Your task to perform on an android device: Search for hotels in Tokyo Image 0: 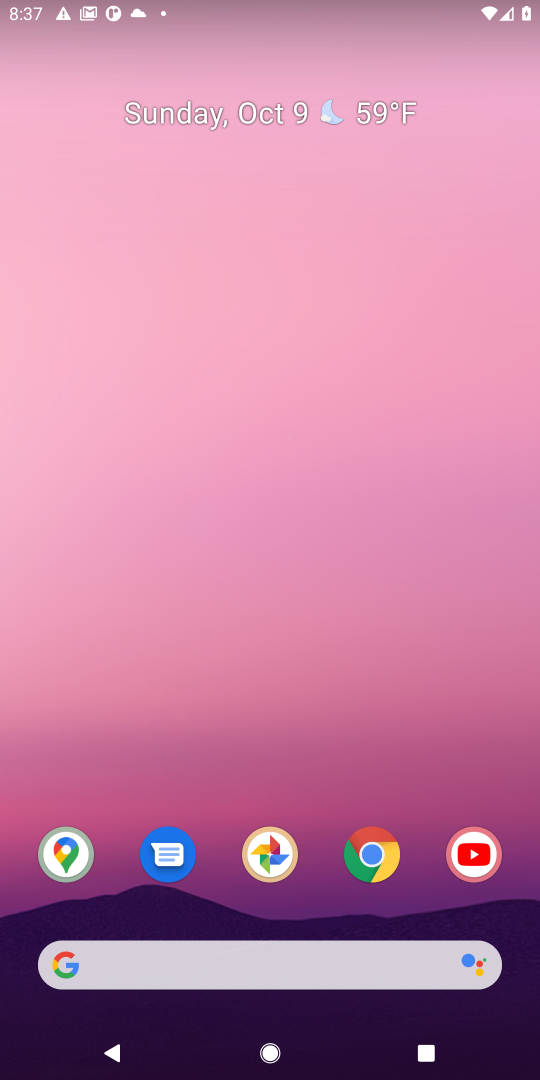
Step 0: drag from (272, 924) to (234, 86)
Your task to perform on an android device: Search for hotels in Tokyo Image 1: 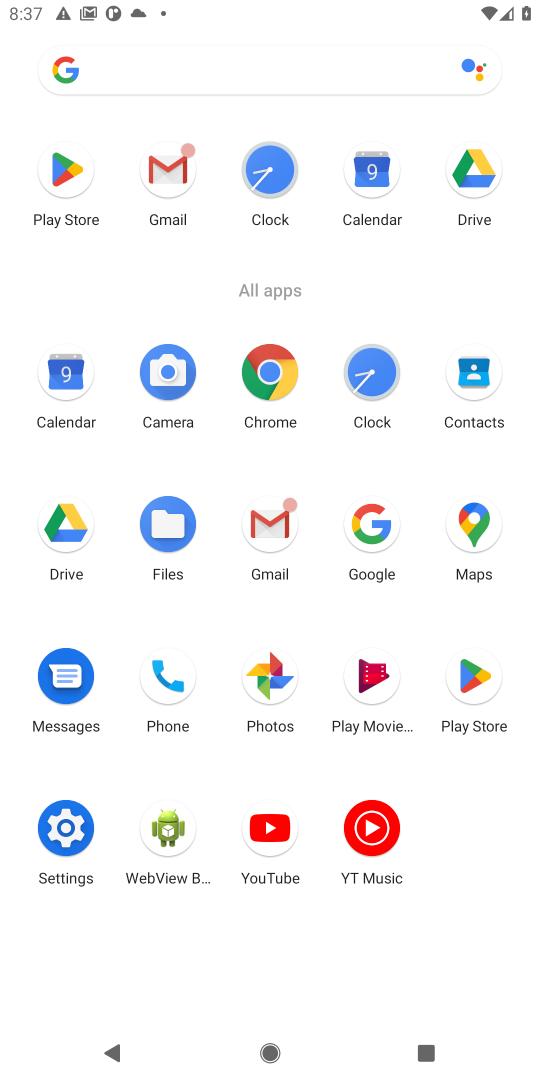
Step 1: click (376, 526)
Your task to perform on an android device: Search for hotels in Tokyo Image 2: 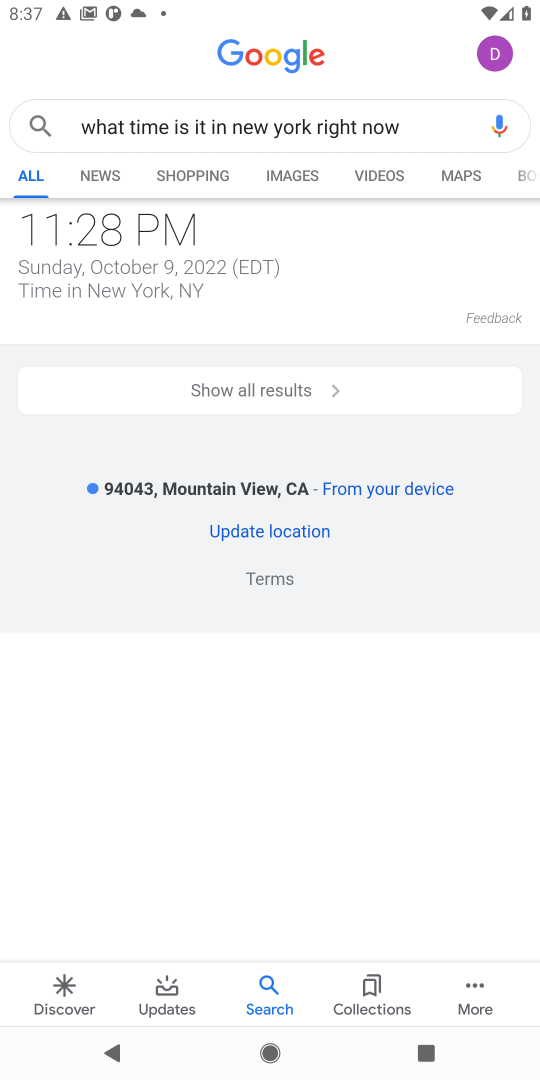
Step 2: click (414, 122)
Your task to perform on an android device: Search for hotels in Tokyo Image 3: 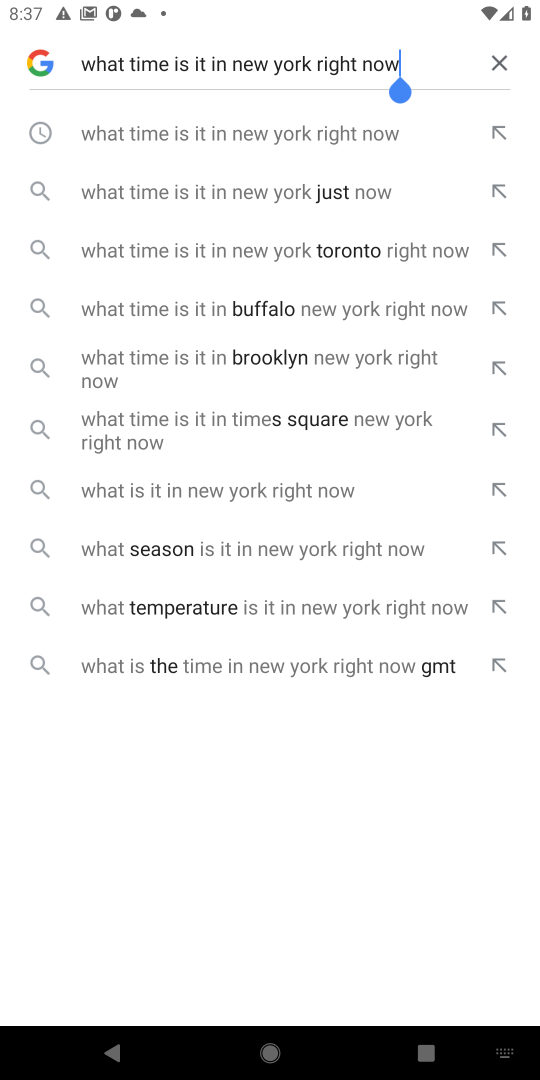
Step 3: click (493, 57)
Your task to perform on an android device: Search for hotels in Tokyo Image 4: 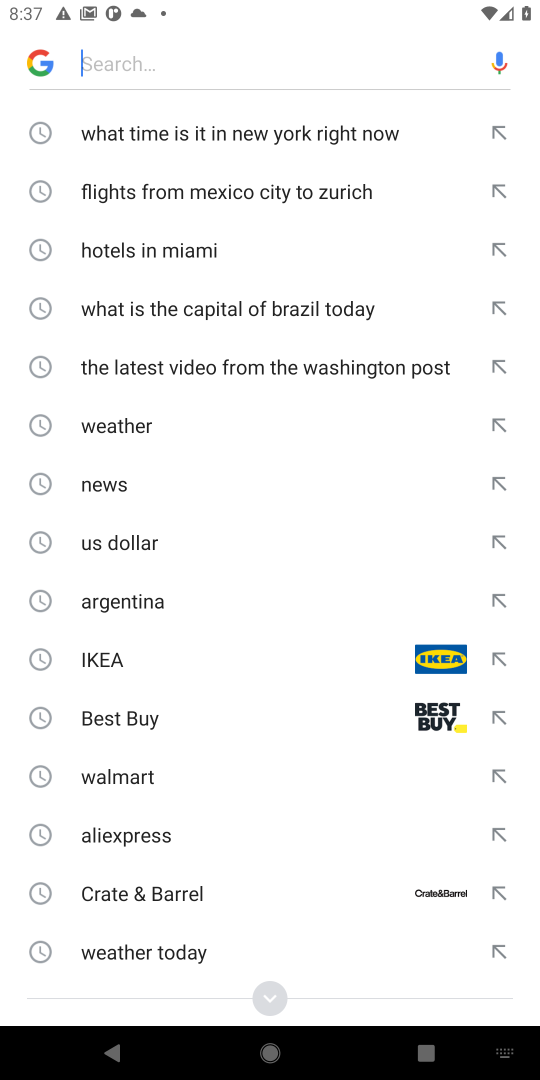
Step 4: type "hotels in Tokyo"
Your task to perform on an android device: Search for hotels in Tokyo Image 5: 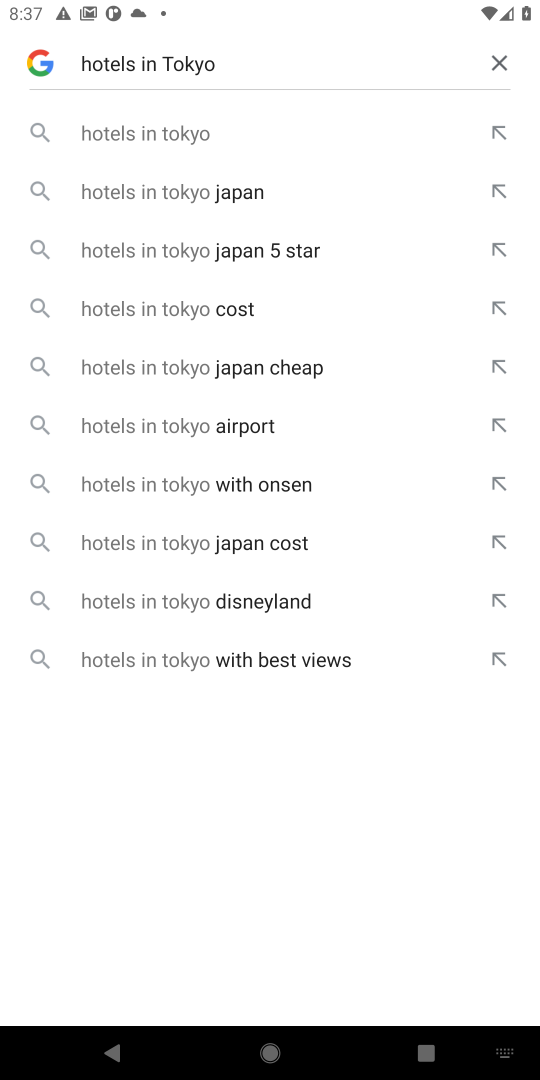
Step 5: click (144, 130)
Your task to perform on an android device: Search for hotels in Tokyo Image 6: 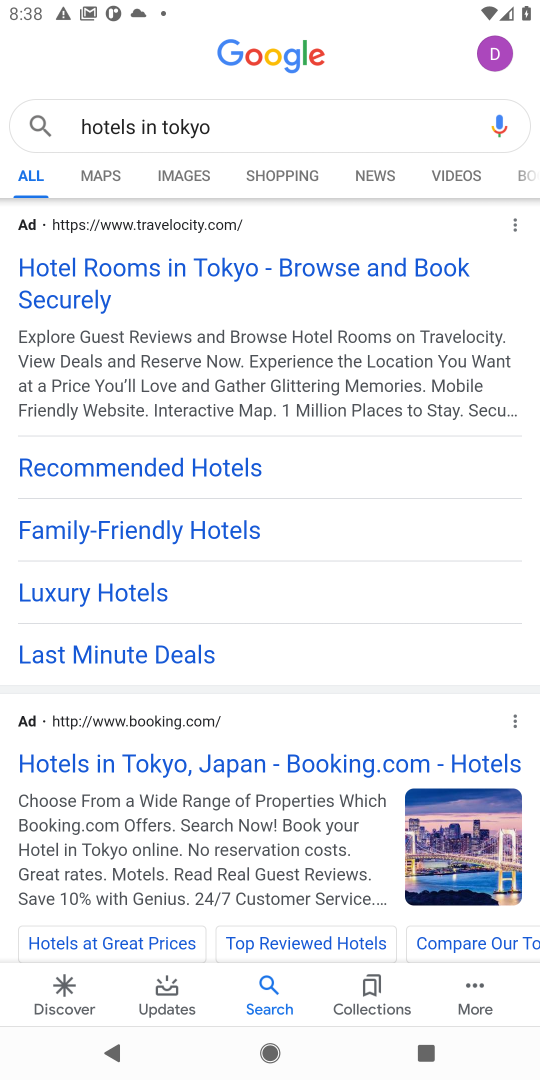
Step 6: click (232, 267)
Your task to perform on an android device: Search for hotels in Tokyo Image 7: 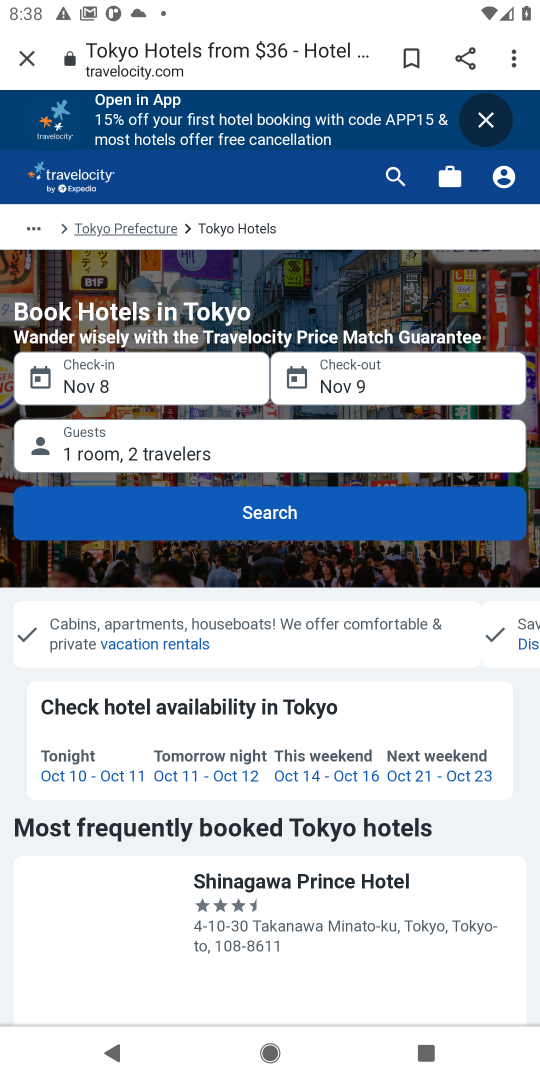
Step 7: task complete